Your task to perform on an android device: Open calendar and show me the fourth week of next month Image 0: 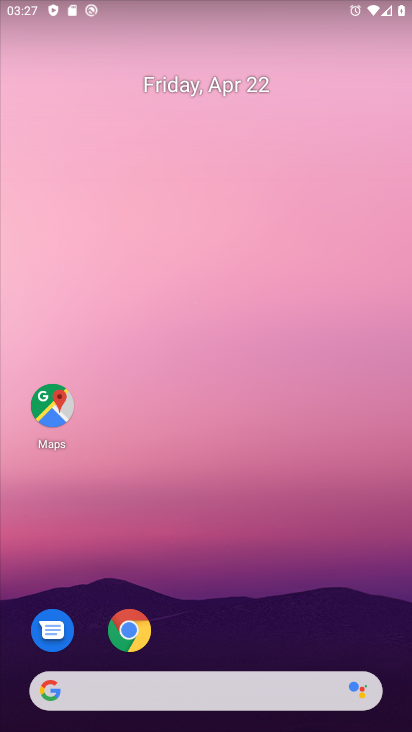
Step 0: drag from (212, 576) to (341, 43)
Your task to perform on an android device: Open calendar and show me the fourth week of next month Image 1: 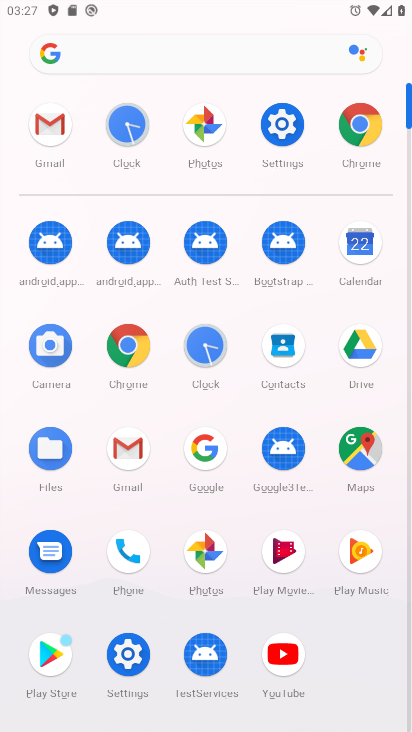
Step 1: click (368, 240)
Your task to perform on an android device: Open calendar and show me the fourth week of next month Image 2: 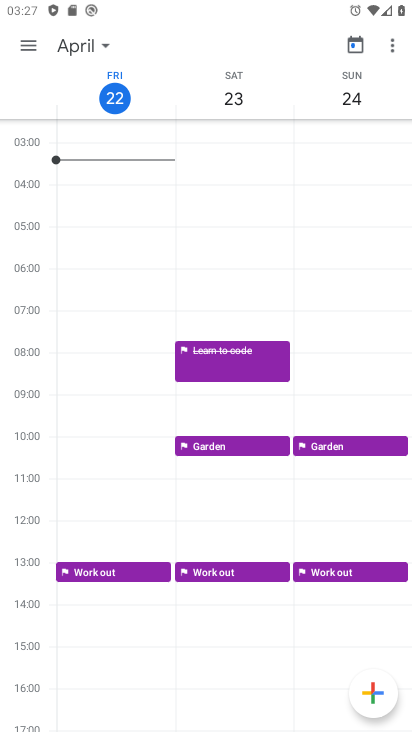
Step 2: click (33, 50)
Your task to perform on an android device: Open calendar and show me the fourth week of next month Image 3: 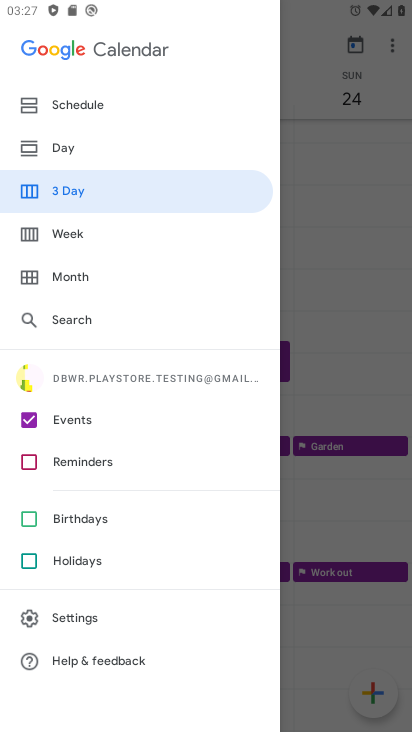
Step 3: click (78, 241)
Your task to perform on an android device: Open calendar and show me the fourth week of next month Image 4: 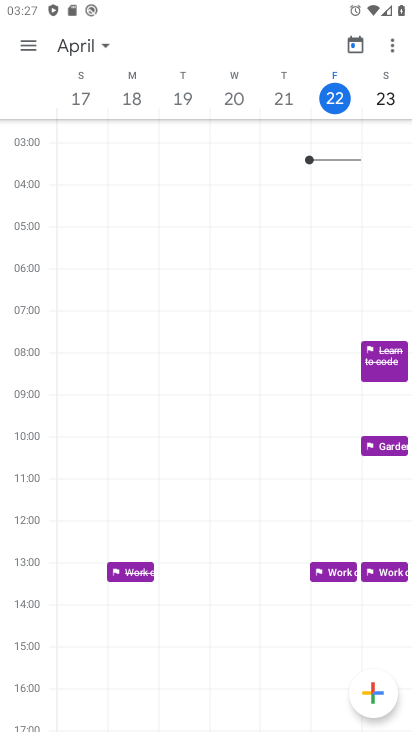
Step 4: task complete